Your task to perform on an android device: Search for vegetarian restaurants on Maps Image 0: 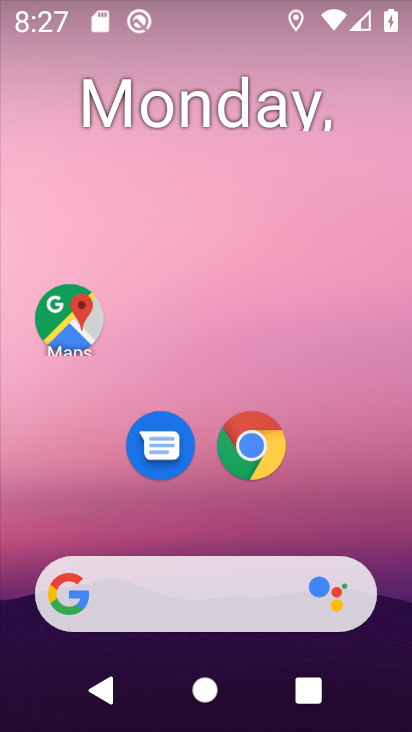
Step 0: press home button
Your task to perform on an android device: Search for vegetarian restaurants on Maps Image 1: 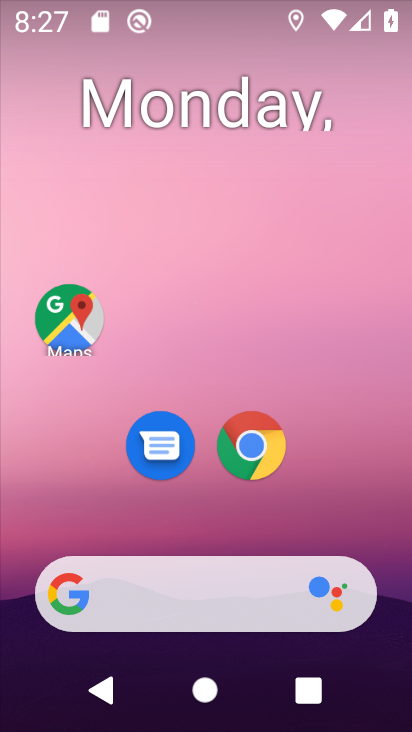
Step 1: click (49, 321)
Your task to perform on an android device: Search for vegetarian restaurants on Maps Image 2: 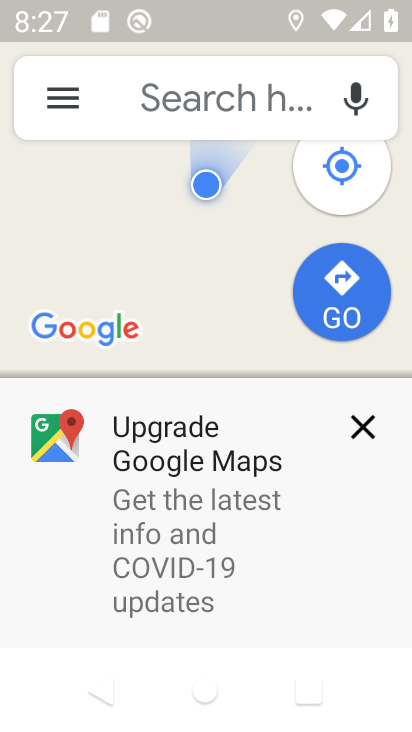
Step 2: click (148, 75)
Your task to perform on an android device: Search for vegetarian restaurants on Maps Image 3: 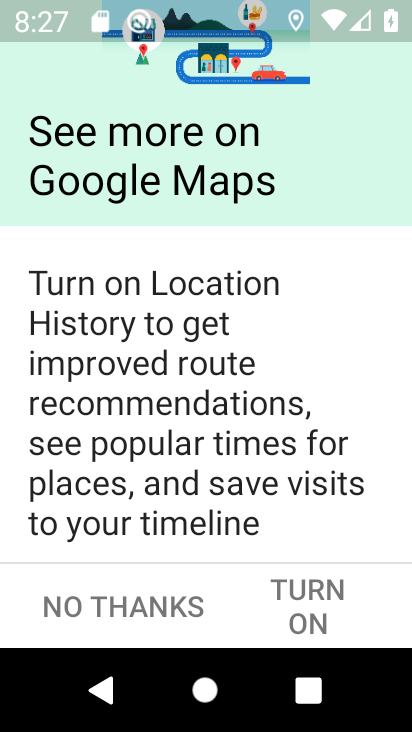
Step 3: click (292, 602)
Your task to perform on an android device: Search for vegetarian restaurants on Maps Image 4: 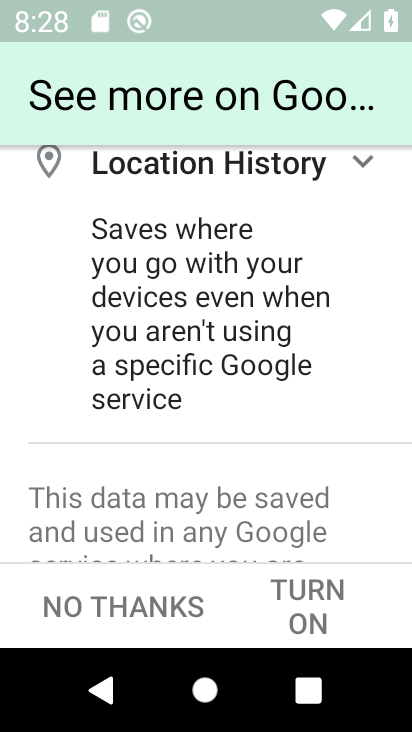
Step 4: click (299, 595)
Your task to perform on an android device: Search for vegetarian restaurants on Maps Image 5: 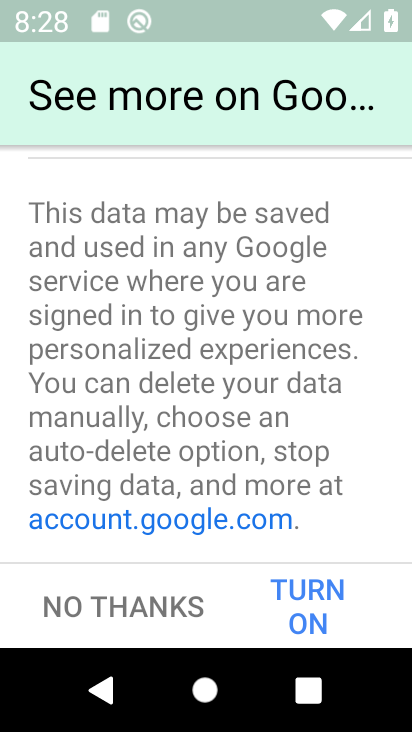
Step 5: click (301, 592)
Your task to perform on an android device: Search for vegetarian restaurants on Maps Image 6: 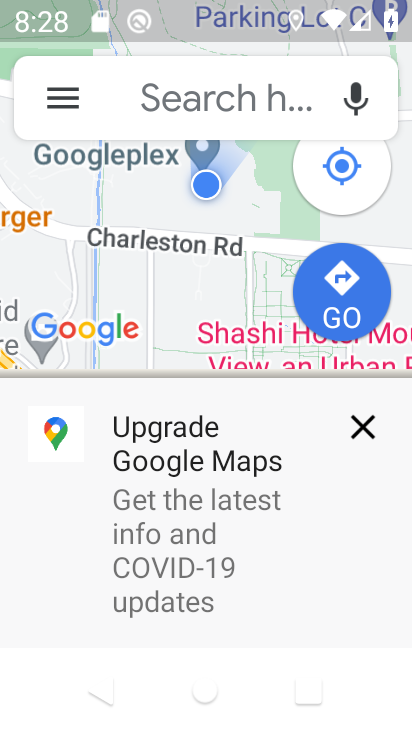
Step 6: click (360, 431)
Your task to perform on an android device: Search for vegetarian restaurants on Maps Image 7: 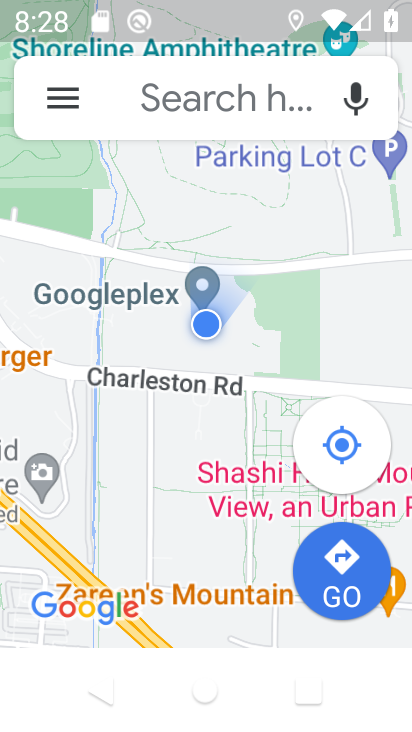
Step 7: click (170, 96)
Your task to perform on an android device: Search for vegetarian restaurants on Maps Image 8: 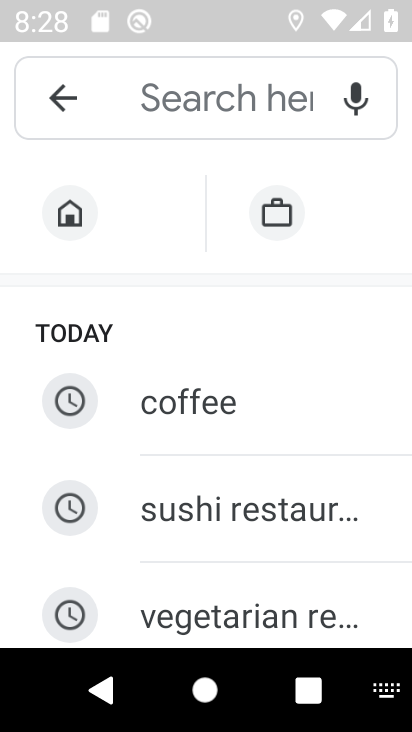
Step 8: click (212, 613)
Your task to perform on an android device: Search for vegetarian restaurants on Maps Image 9: 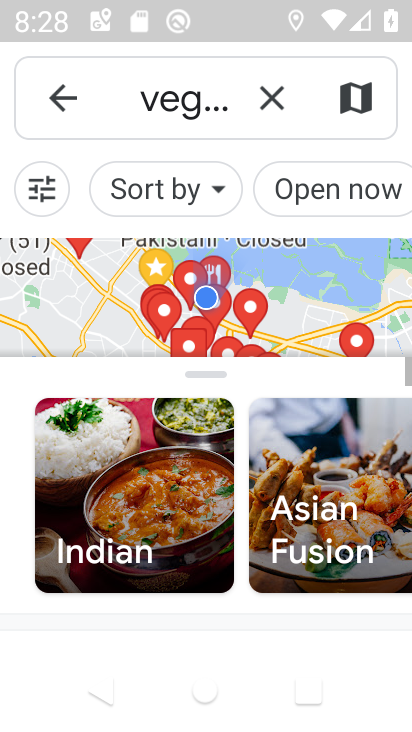
Step 9: task complete